Your task to perform on an android device: set default search engine in the chrome app Image 0: 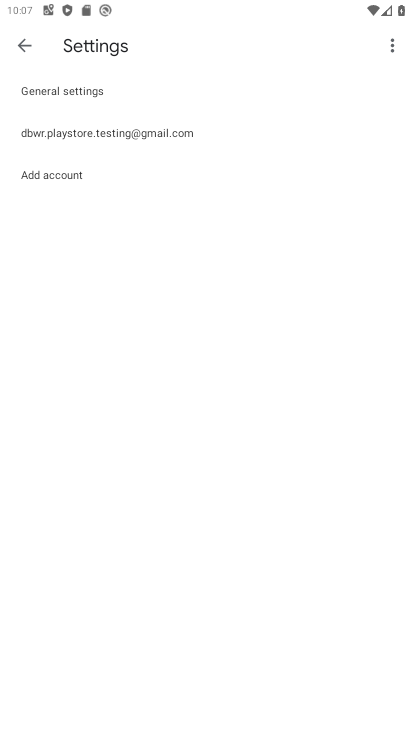
Step 0: press back button
Your task to perform on an android device: set default search engine in the chrome app Image 1: 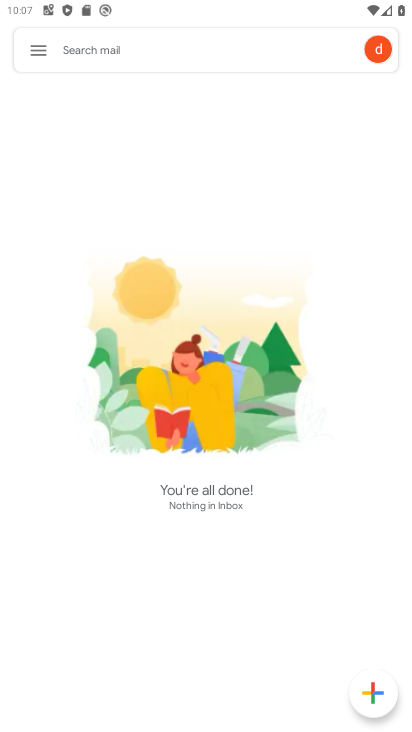
Step 1: press home button
Your task to perform on an android device: set default search engine in the chrome app Image 2: 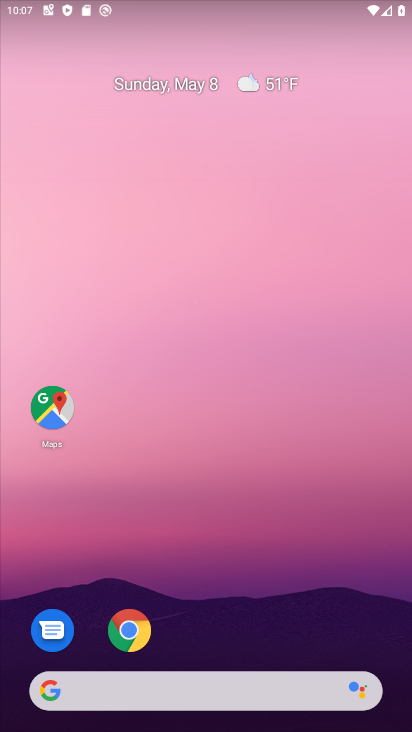
Step 2: click (132, 632)
Your task to perform on an android device: set default search engine in the chrome app Image 3: 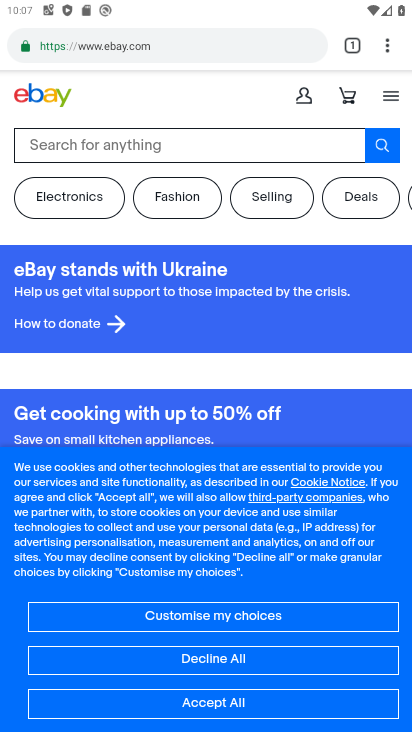
Step 3: press back button
Your task to perform on an android device: set default search engine in the chrome app Image 4: 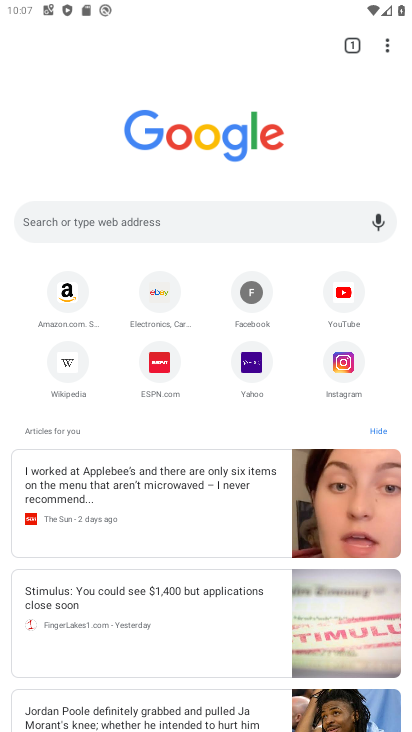
Step 4: click (393, 47)
Your task to perform on an android device: set default search engine in the chrome app Image 5: 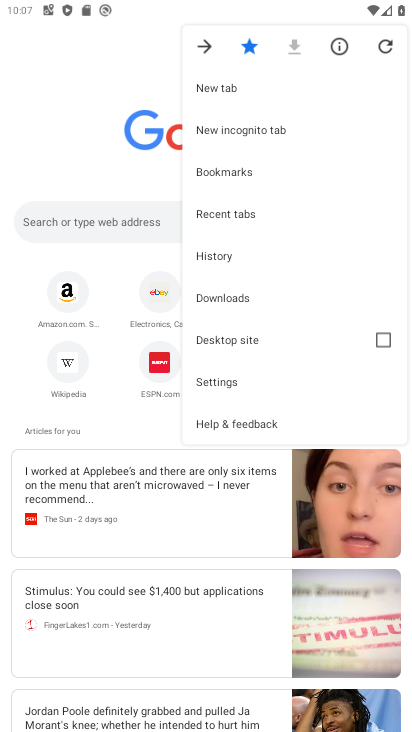
Step 5: click (246, 388)
Your task to perform on an android device: set default search engine in the chrome app Image 6: 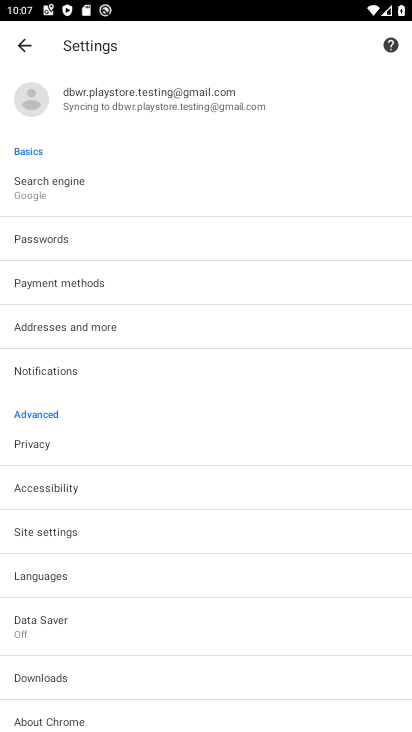
Step 6: click (148, 197)
Your task to perform on an android device: set default search engine in the chrome app Image 7: 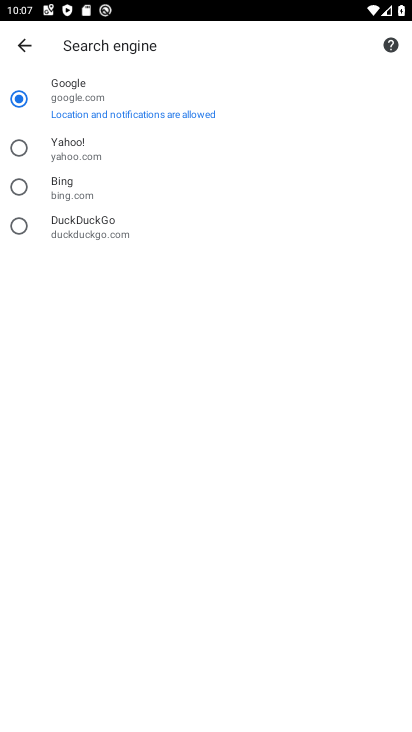
Step 7: click (105, 169)
Your task to perform on an android device: set default search engine in the chrome app Image 8: 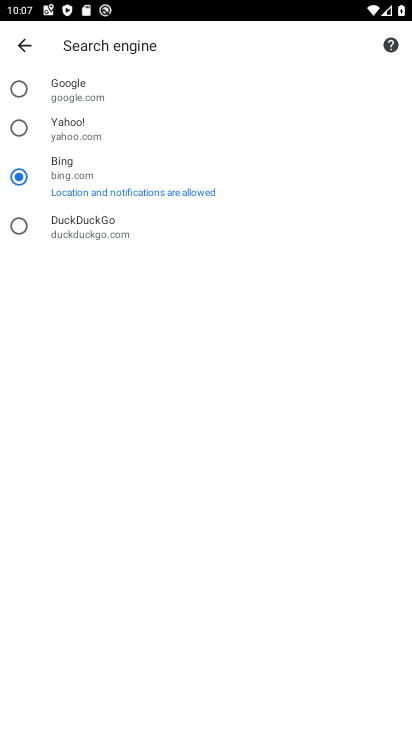
Step 8: task complete